Your task to perform on an android device: Go to Maps Image 0: 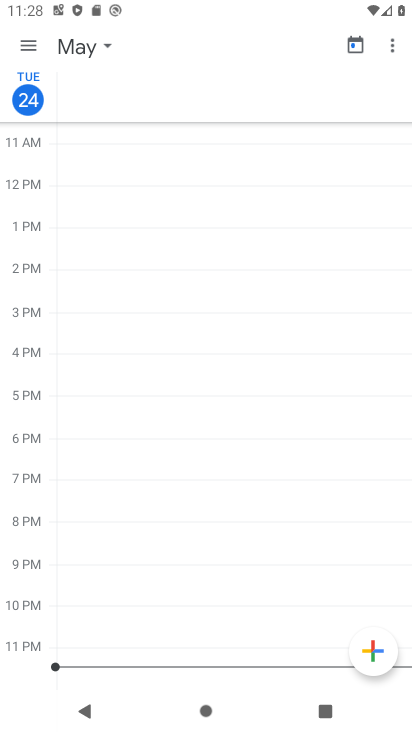
Step 0: press home button
Your task to perform on an android device: Go to Maps Image 1: 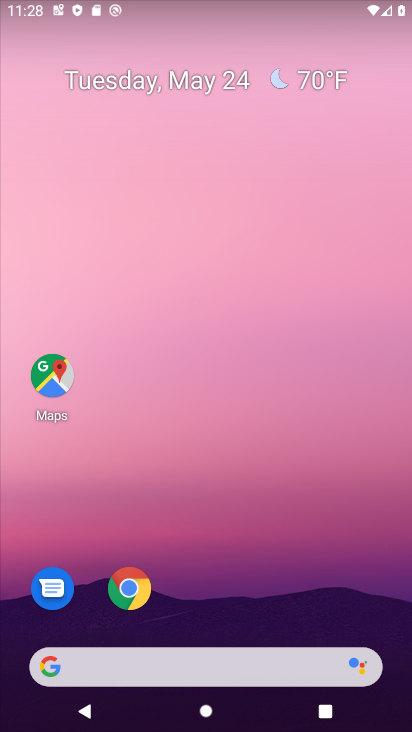
Step 1: click (52, 367)
Your task to perform on an android device: Go to Maps Image 2: 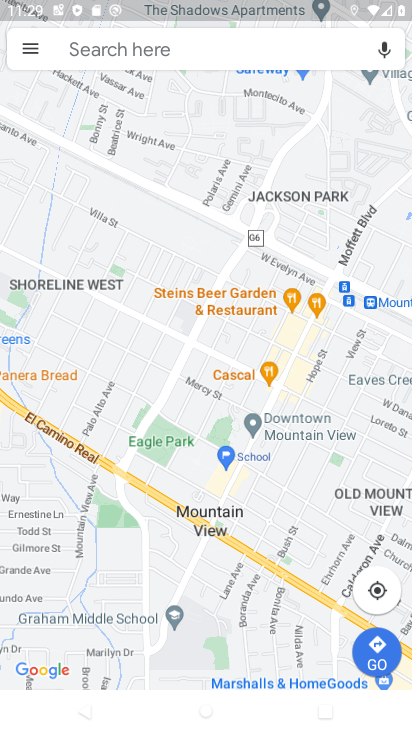
Step 2: task complete